Your task to perform on an android device: Open calendar and show me the second week of next month Image 0: 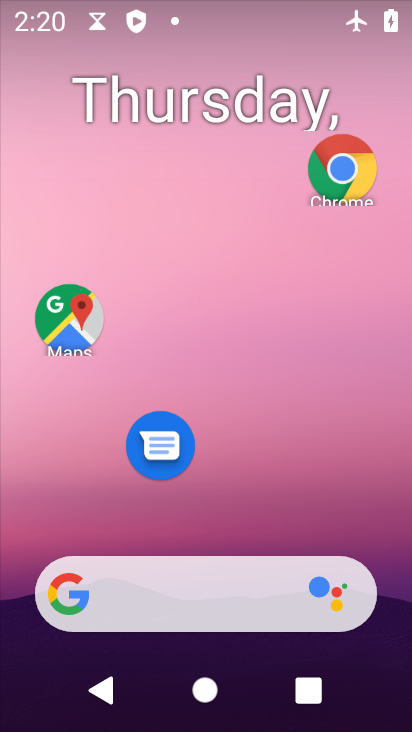
Step 0: click (258, 91)
Your task to perform on an android device: Open calendar and show me the second week of next month Image 1: 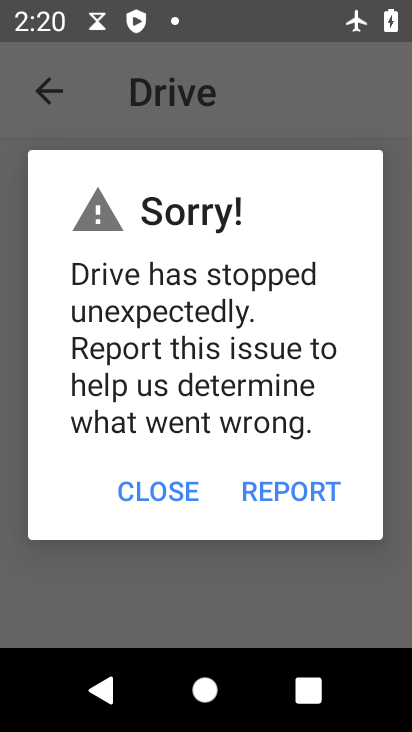
Step 1: click (188, 491)
Your task to perform on an android device: Open calendar and show me the second week of next month Image 2: 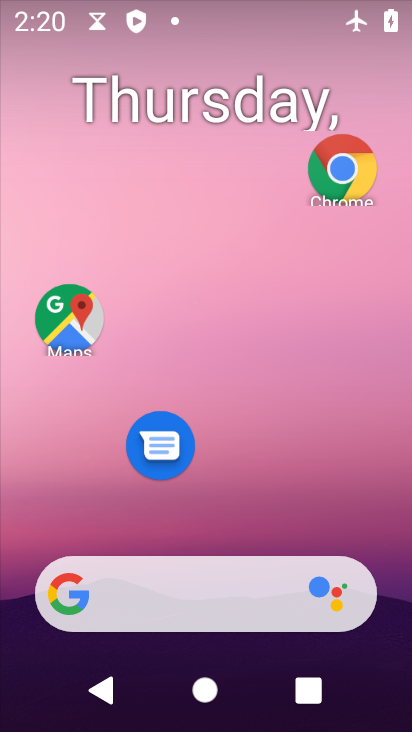
Step 2: drag from (197, 516) to (265, 119)
Your task to perform on an android device: Open calendar and show me the second week of next month Image 3: 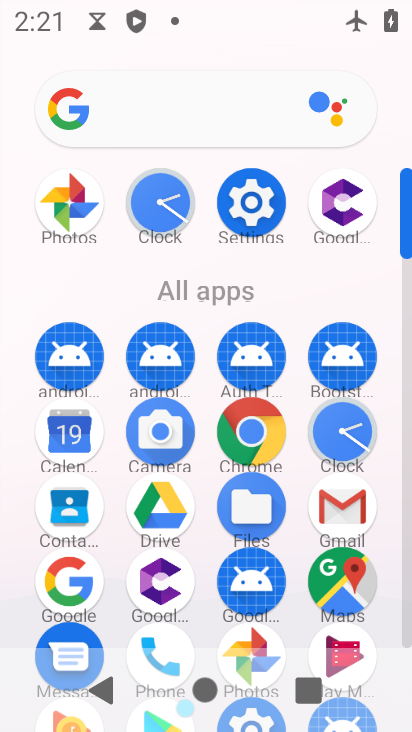
Step 3: click (243, 226)
Your task to perform on an android device: Open calendar and show me the second week of next month Image 4: 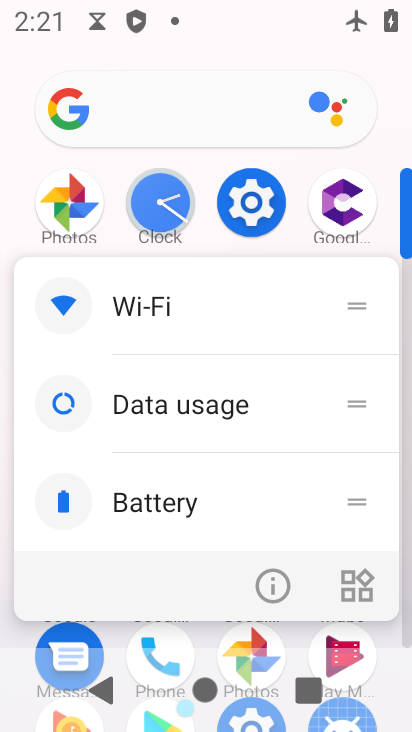
Step 4: click (249, 201)
Your task to perform on an android device: Open calendar and show me the second week of next month Image 5: 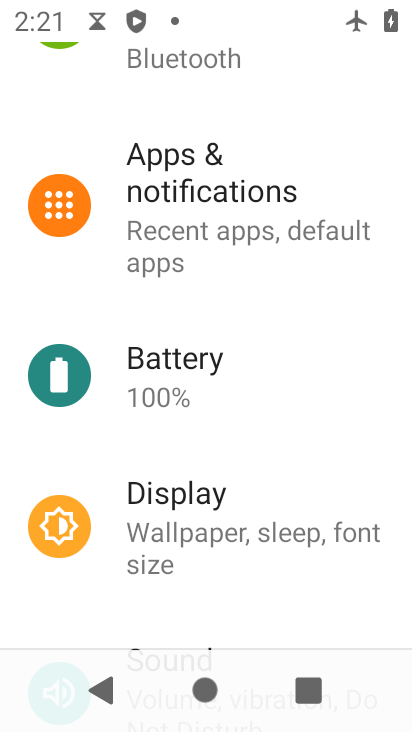
Step 5: click (255, 209)
Your task to perform on an android device: Open calendar and show me the second week of next month Image 6: 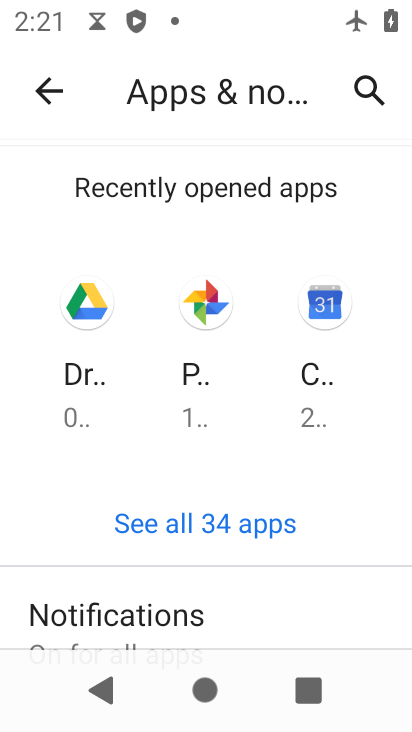
Step 6: click (46, 84)
Your task to perform on an android device: Open calendar and show me the second week of next month Image 7: 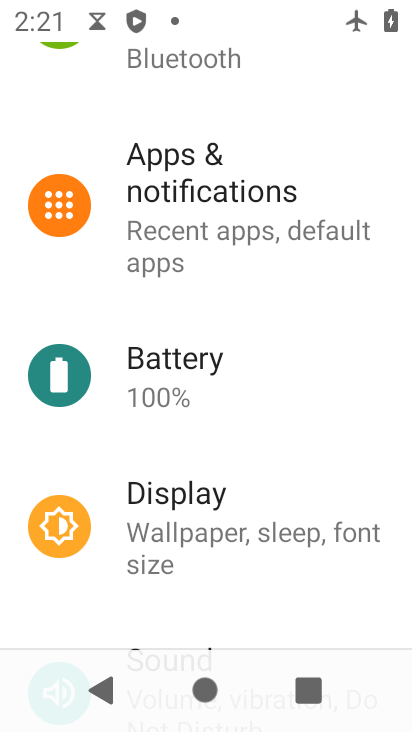
Step 7: click (174, 376)
Your task to perform on an android device: Open calendar and show me the second week of next month Image 8: 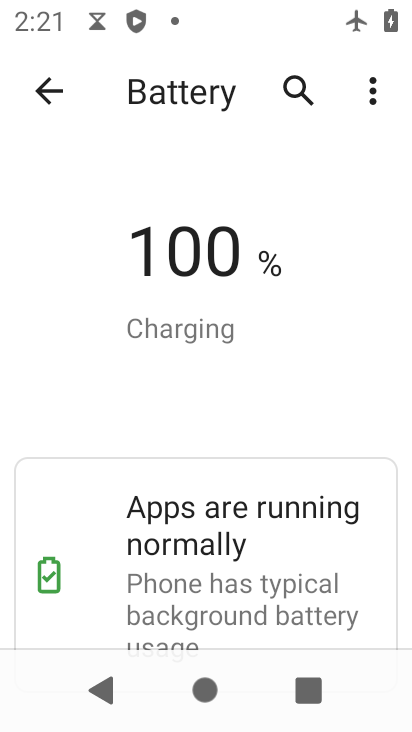
Step 8: task complete